Your task to perform on an android device: toggle show notifications on the lock screen Image 0: 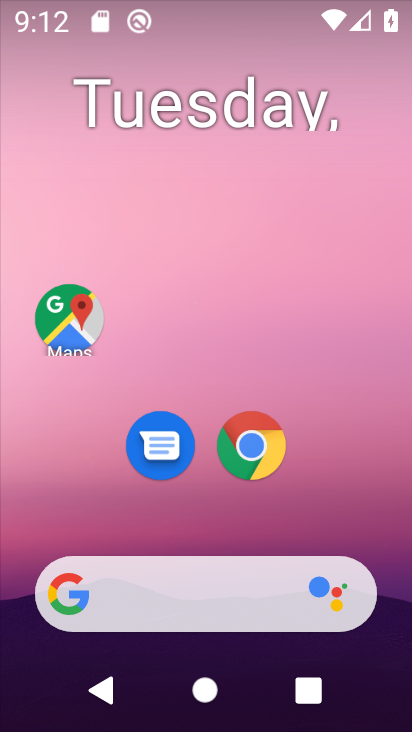
Step 0: drag from (349, 276) to (339, 195)
Your task to perform on an android device: toggle show notifications on the lock screen Image 1: 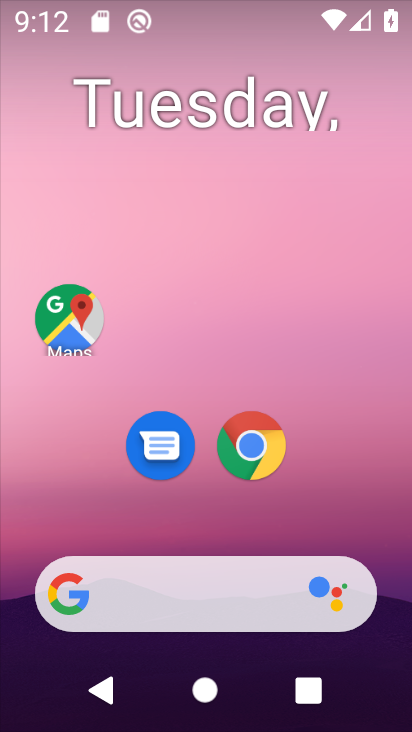
Step 1: drag from (357, 180) to (347, 135)
Your task to perform on an android device: toggle show notifications on the lock screen Image 2: 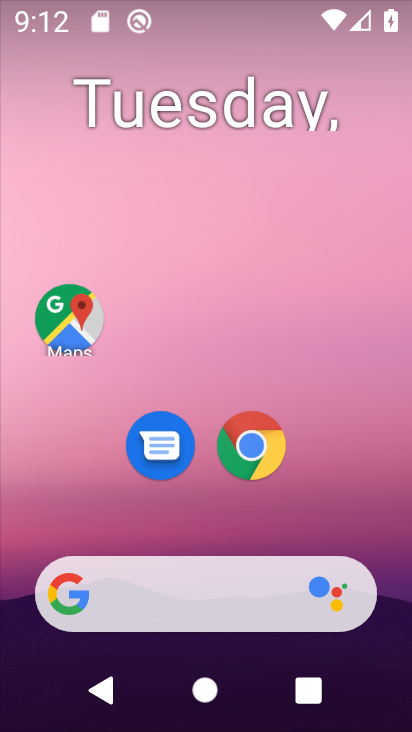
Step 2: drag from (393, 590) to (357, 91)
Your task to perform on an android device: toggle show notifications on the lock screen Image 3: 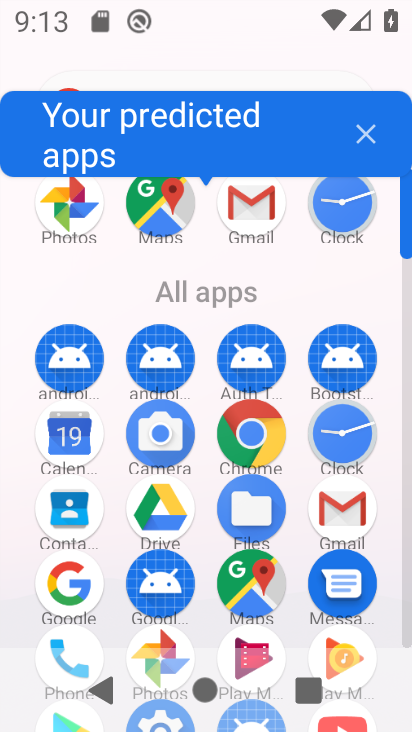
Step 3: drag from (403, 221) to (398, 126)
Your task to perform on an android device: toggle show notifications on the lock screen Image 4: 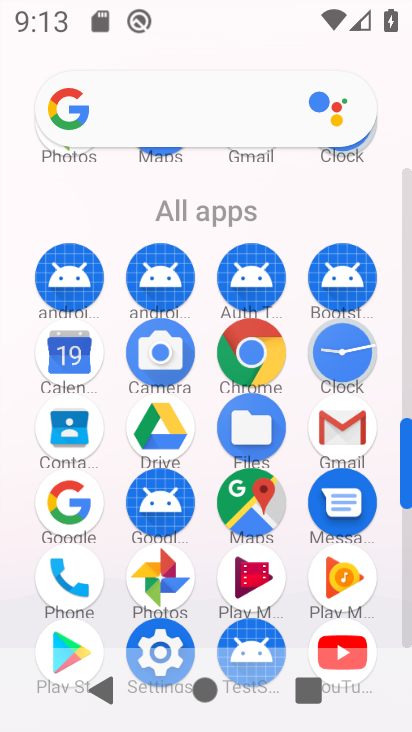
Step 4: click (161, 633)
Your task to perform on an android device: toggle show notifications on the lock screen Image 5: 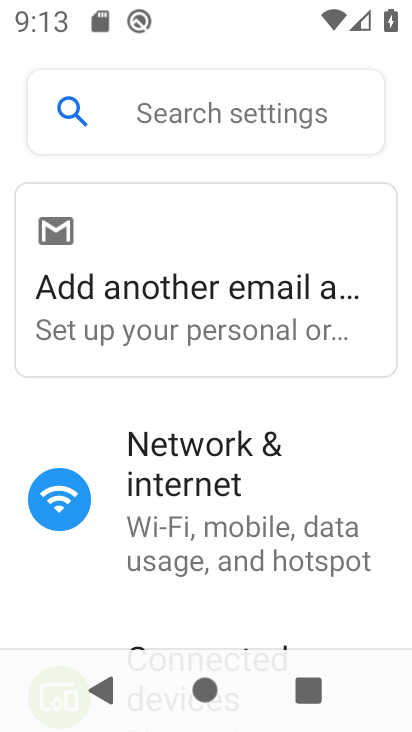
Step 5: click (404, 222)
Your task to perform on an android device: toggle show notifications on the lock screen Image 6: 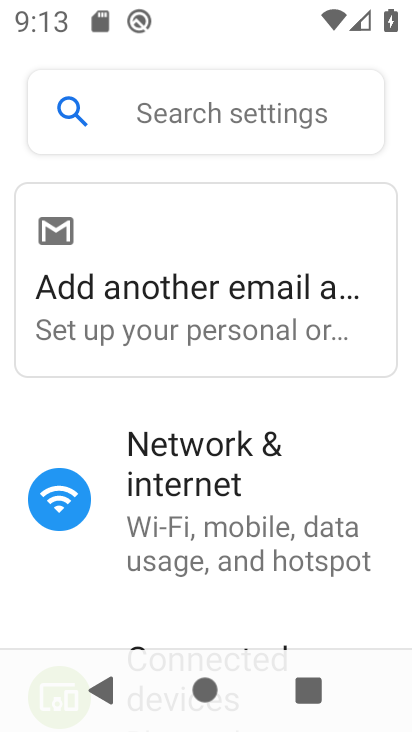
Step 6: drag from (357, 354) to (354, 225)
Your task to perform on an android device: toggle show notifications on the lock screen Image 7: 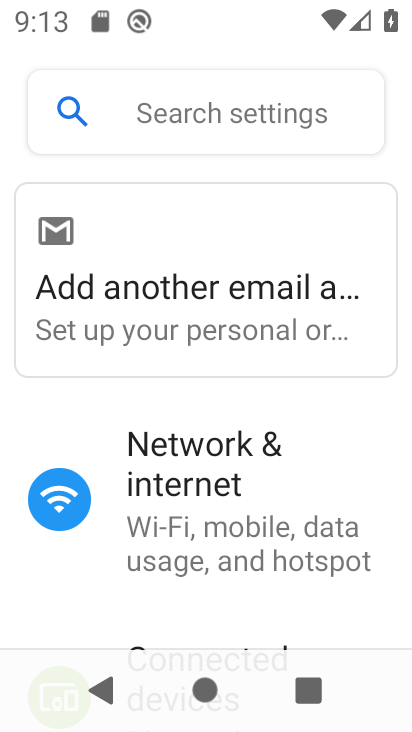
Step 7: drag from (356, 379) to (344, 146)
Your task to perform on an android device: toggle show notifications on the lock screen Image 8: 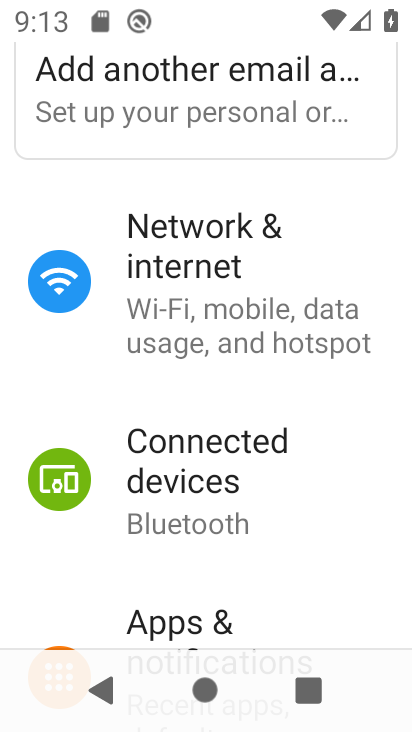
Step 8: drag from (347, 605) to (346, 207)
Your task to perform on an android device: toggle show notifications on the lock screen Image 9: 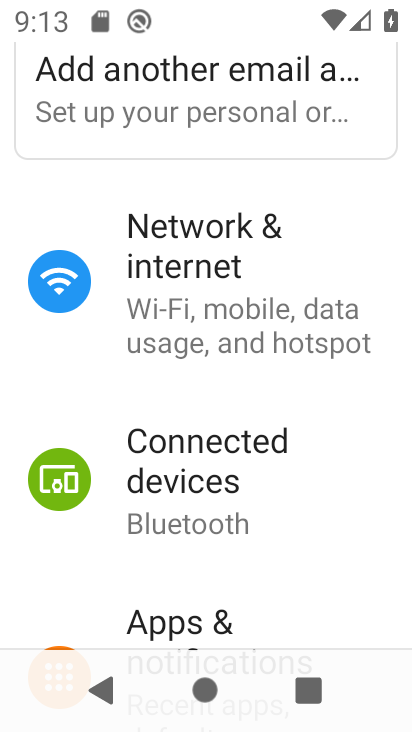
Step 9: click (188, 617)
Your task to perform on an android device: toggle show notifications on the lock screen Image 10: 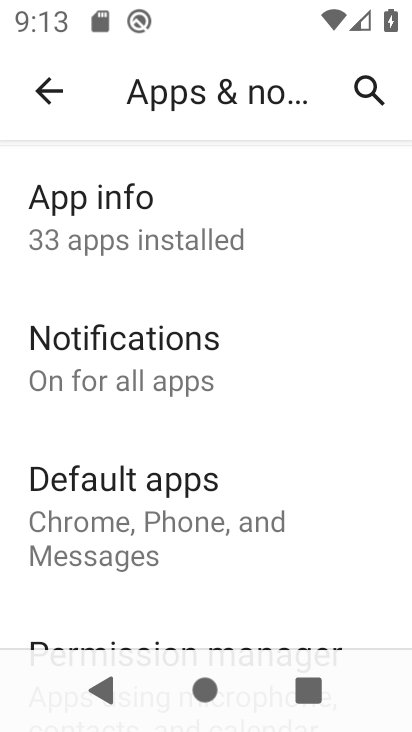
Step 10: drag from (328, 602) to (314, 199)
Your task to perform on an android device: toggle show notifications on the lock screen Image 11: 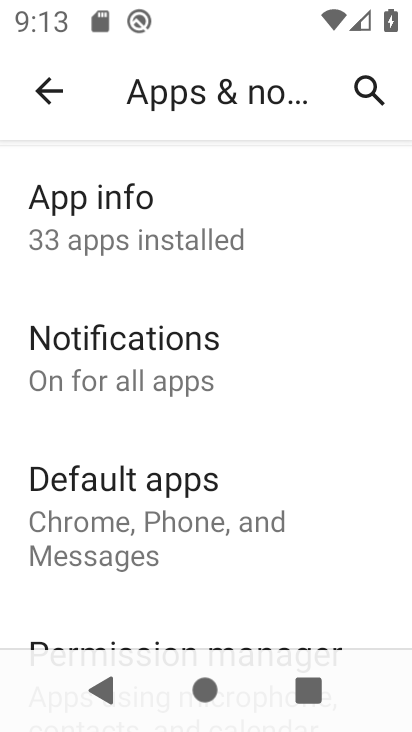
Step 11: click (107, 354)
Your task to perform on an android device: toggle show notifications on the lock screen Image 12: 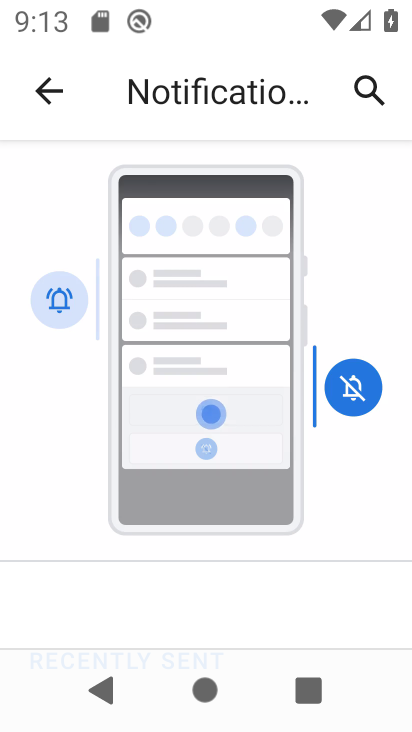
Step 12: drag from (292, 488) to (290, 246)
Your task to perform on an android device: toggle show notifications on the lock screen Image 13: 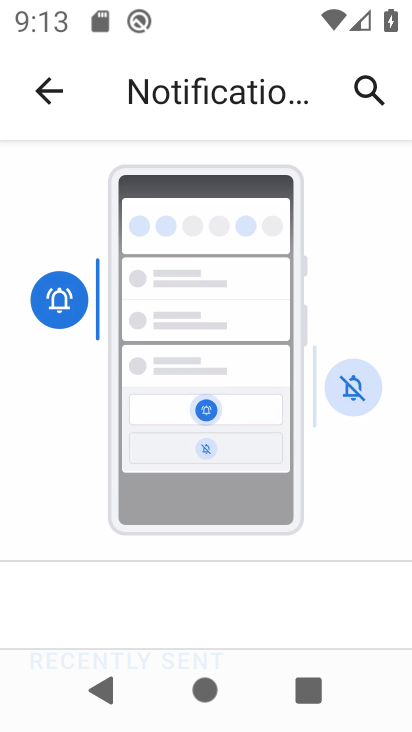
Step 13: drag from (284, 597) to (279, 236)
Your task to perform on an android device: toggle show notifications on the lock screen Image 14: 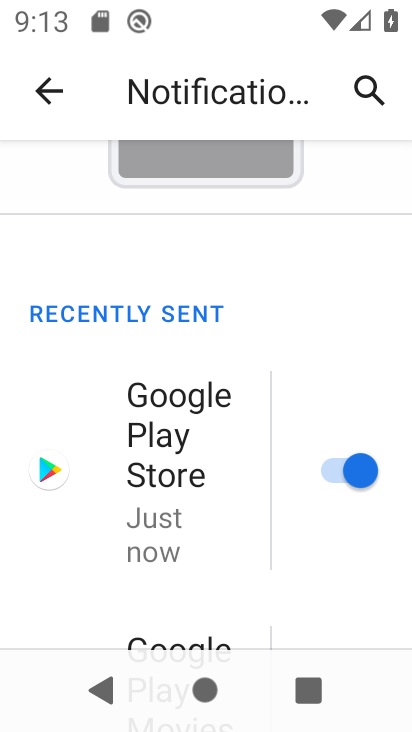
Step 14: click (280, 202)
Your task to perform on an android device: toggle show notifications on the lock screen Image 15: 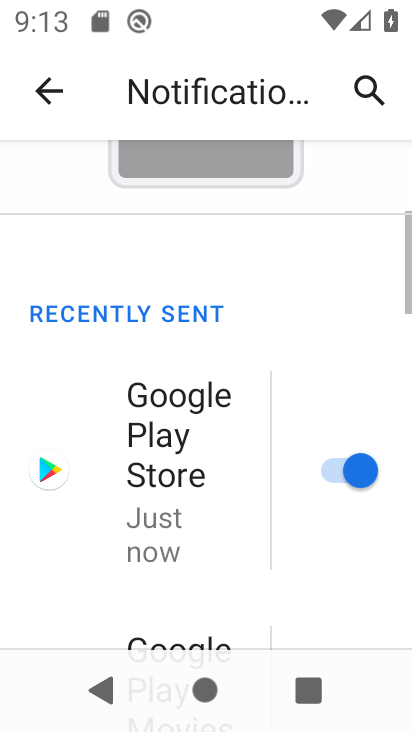
Step 15: drag from (267, 415) to (269, 253)
Your task to perform on an android device: toggle show notifications on the lock screen Image 16: 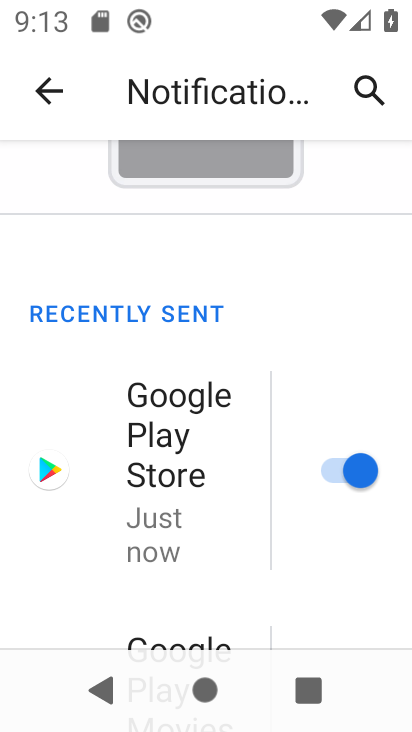
Step 16: drag from (275, 411) to (262, 262)
Your task to perform on an android device: toggle show notifications on the lock screen Image 17: 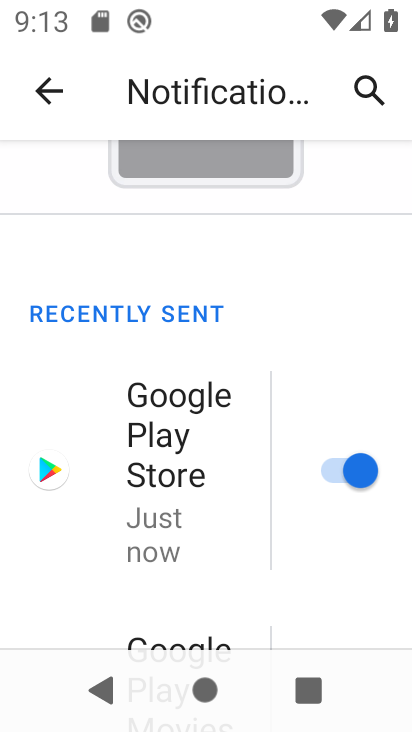
Step 17: drag from (257, 613) to (246, 251)
Your task to perform on an android device: toggle show notifications on the lock screen Image 18: 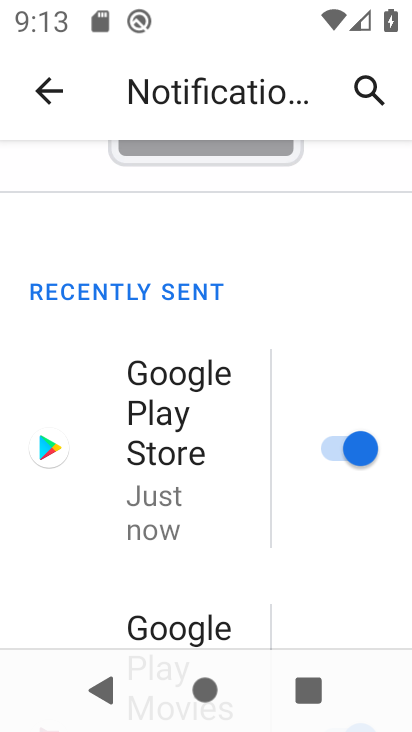
Step 18: drag from (289, 335) to (276, 188)
Your task to perform on an android device: toggle show notifications on the lock screen Image 19: 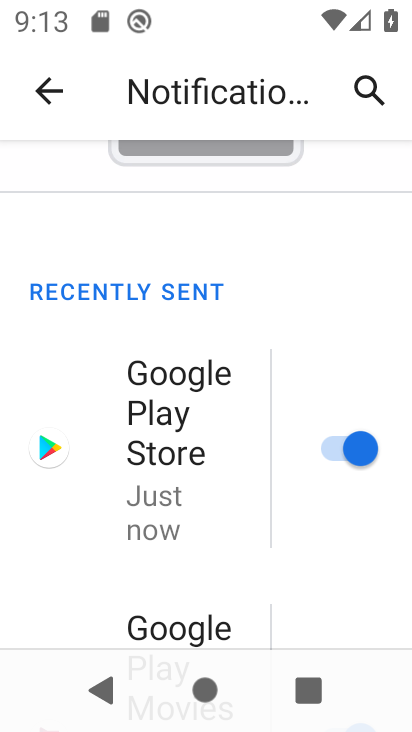
Step 19: drag from (273, 623) to (250, 297)
Your task to perform on an android device: toggle show notifications on the lock screen Image 20: 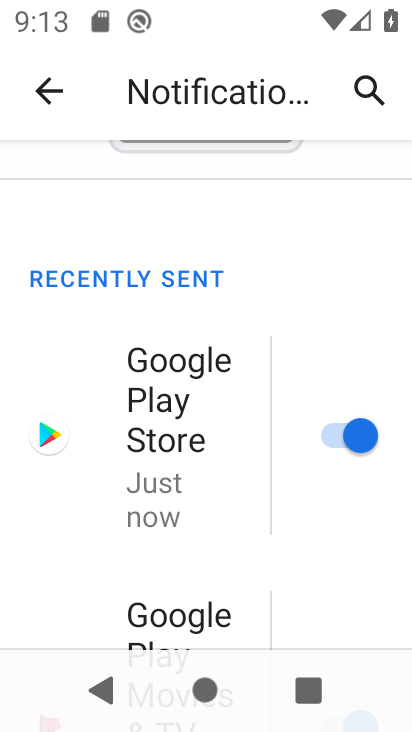
Step 20: drag from (265, 592) to (246, 261)
Your task to perform on an android device: toggle show notifications on the lock screen Image 21: 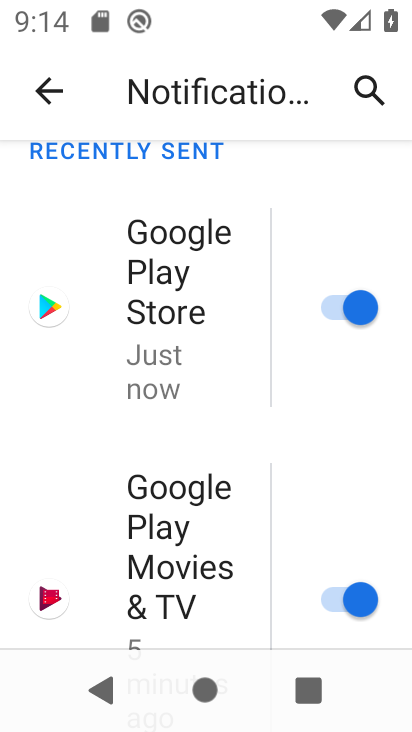
Step 21: drag from (411, 241) to (400, 192)
Your task to perform on an android device: toggle show notifications on the lock screen Image 22: 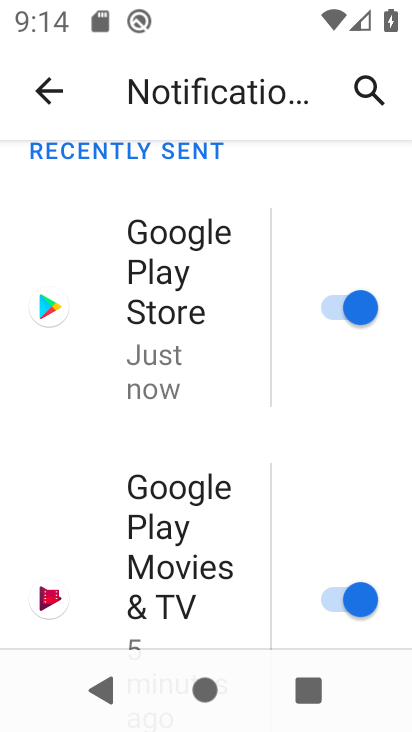
Step 22: drag from (273, 553) to (280, 258)
Your task to perform on an android device: toggle show notifications on the lock screen Image 23: 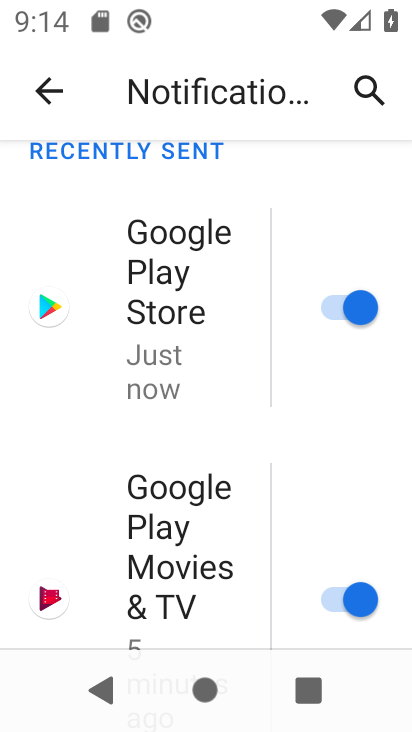
Step 23: drag from (282, 483) to (272, 244)
Your task to perform on an android device: toggle show notifications on the lock screen Image 24: 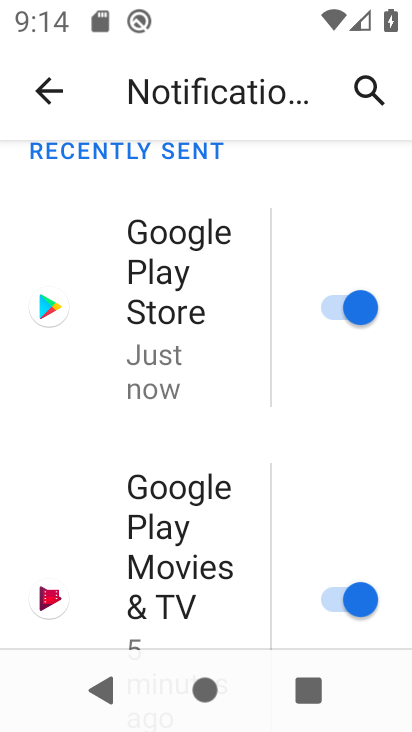
Step 24: drag from (269, 603) to (255, 158)
Your task to perform on an android device: toggle show notifications on the lock screen Image 25: 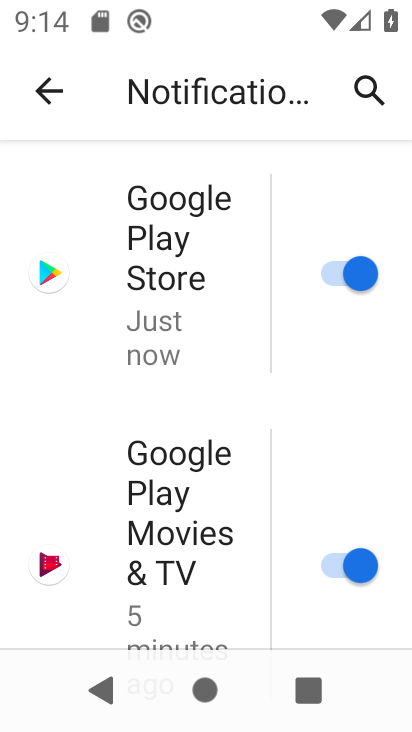
Step 25: drag from (272, 573) to (257, 199)
Your task to perform on an android device: toggle show notifications on the lock screen Image 26: 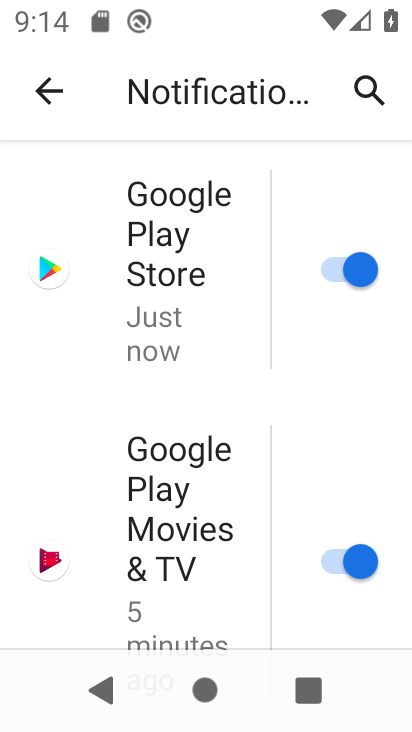
Step 26: drag from (271, 339) to (256, 161)
Your task to perform on an android device: toggle show notifications on the lock screen Image 27: 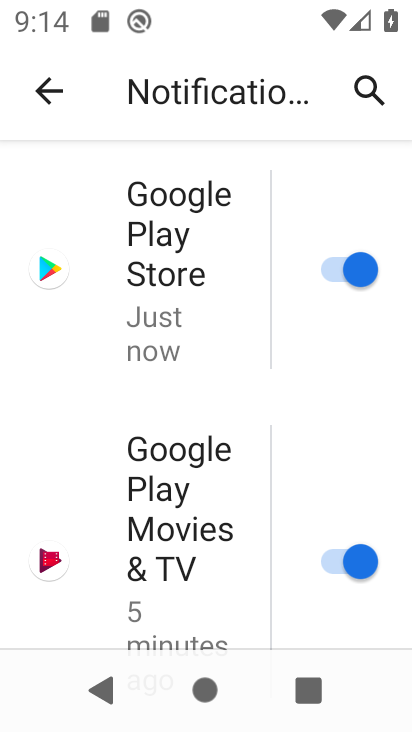
Step 27: drag from (305, 498) to (321, 205)
Your task to perform on an android device: toggle show notifications on the lock screen Image 28: 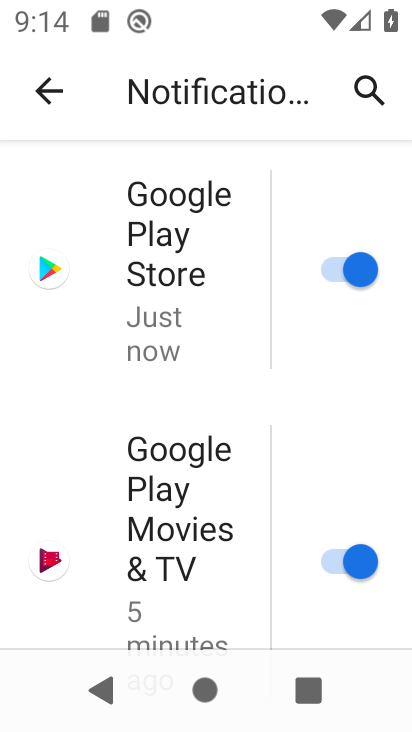
Step 28: drag from (262, 581) to (246, 224)
Your task to perform on an android device: toggle show notifications on the lock screen Image 29: 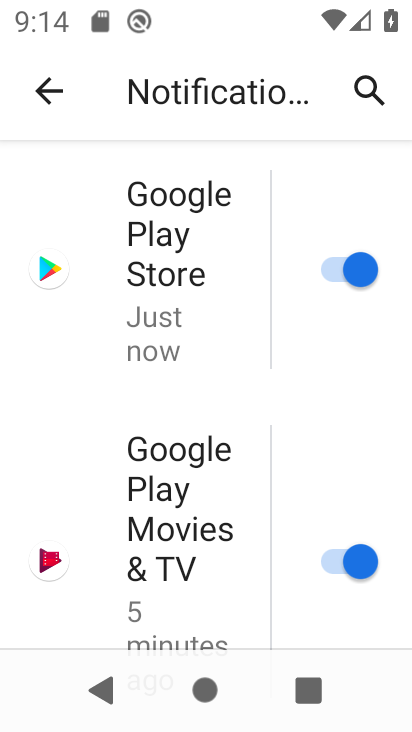
Step 29: drag from (319, 429) to (317, 263)
Your task to perform on an android device: toggle show notifications on the lock screen Image 30: 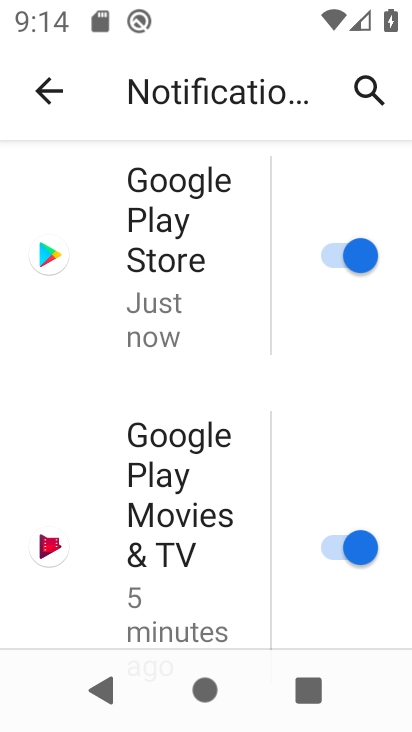
Step 30: drag from (408, 298) to (409, 189)
Your task to perform on an android device: toggle show notifications on the lock screen Image 31: 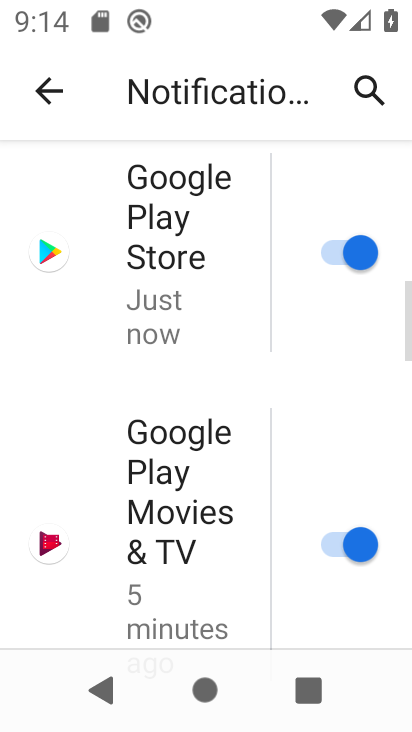
Step 31: drag from (403, 278) to (403, 119)
Your task to perform on an android device: toggle show notifications on the lock screen Image 32: 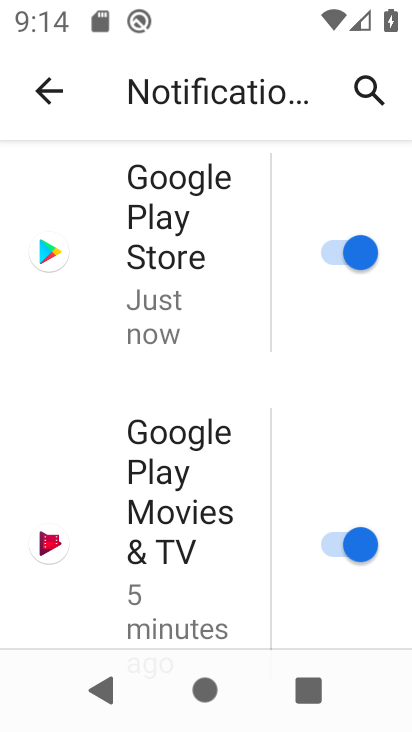
Step 32: drag from (401, 350) to (386, 136)
Your task to perform on an android device: toggle show notifications on the lock screen Image 33: 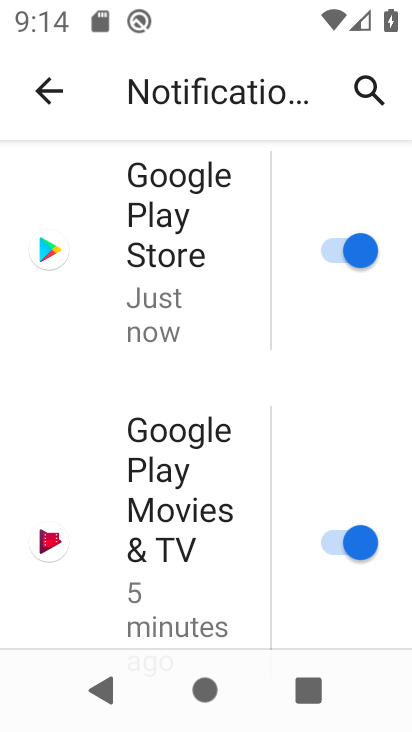
Step 33: drag from (408, 354) to (407, 266)
Your task to perform on an android device: toggle show notifications on the lock screen Image 34: 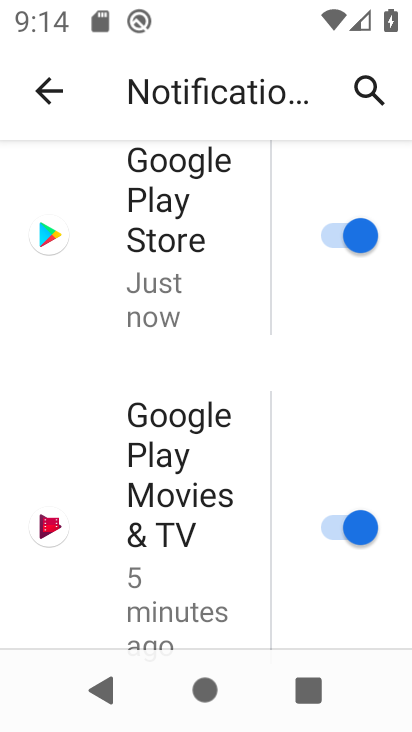
Step 34: drag from (400, 362) to (397, 168)
Your task to perform on an android device: toggle show notifications on the lock screen Image 35: 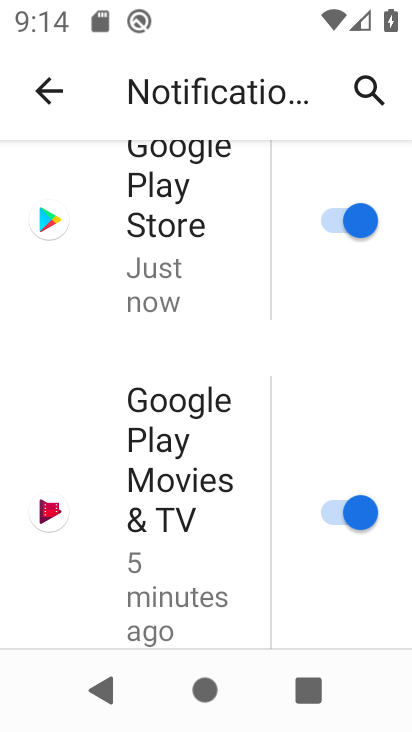
Step 35: drag from (404, 391) to (398, 282)
Your task to perform on an android device: toggle show notifications on the lock screen Image 36: 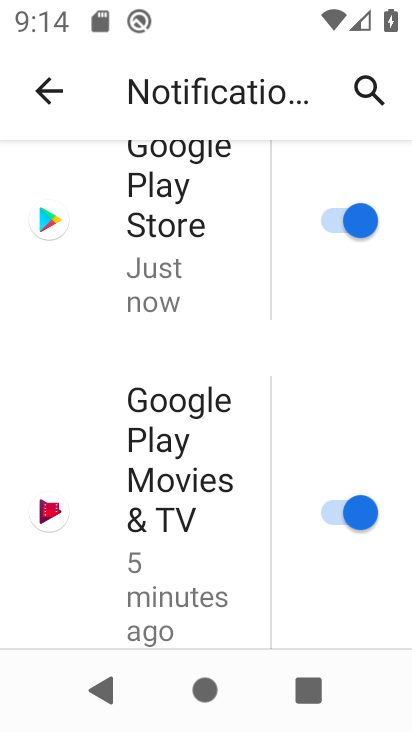
Step 36: click (406, 175)
Your task to perform on an android device: toggle show notifications on the lock screen Image 37: 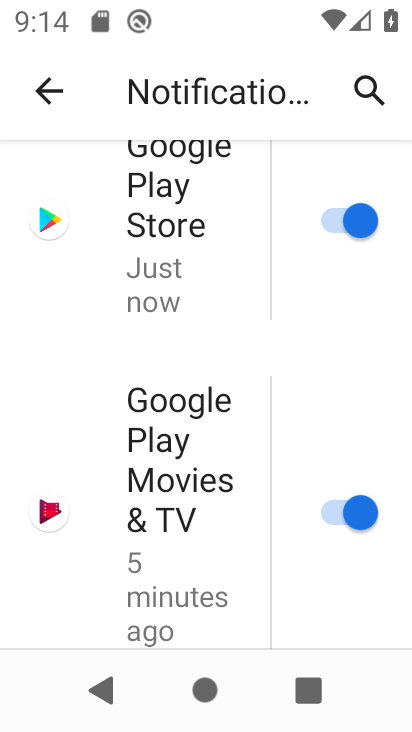
Step 37: drag from (398, 350) to (390, 201)
Your task to perform on an android device: toggle show notifications on the lock screen Image 38: 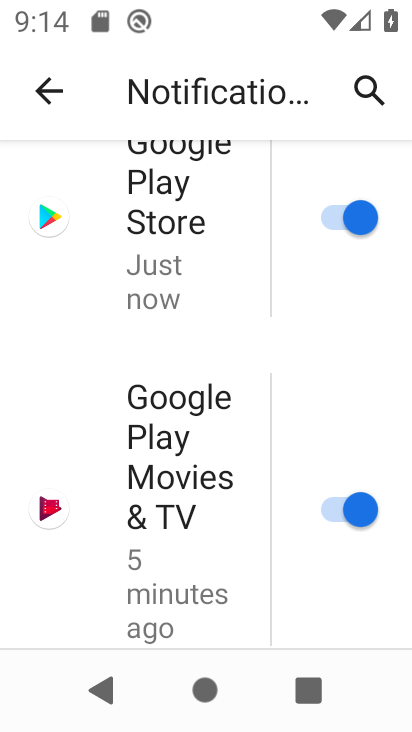
Step 38: drag from (389, 254) to (386, 145)
Your task to perform on an android device: toggle show notifications on the lock screen Image 39: 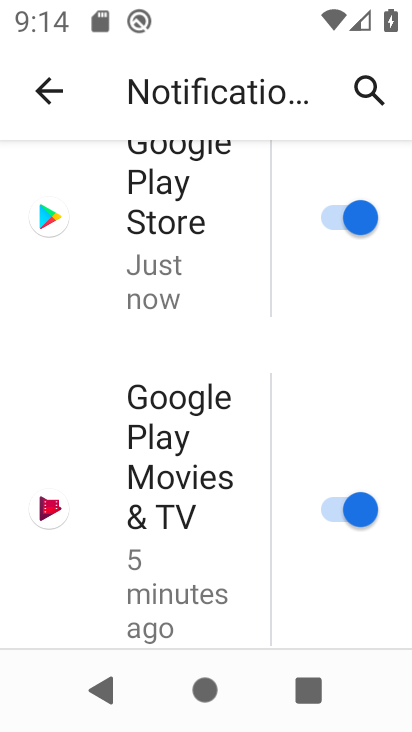
Step 39: drag from (398, 448) to (374, 175)
Your task to perform on an android device: toggle show notifications on the lock screen Image 40: 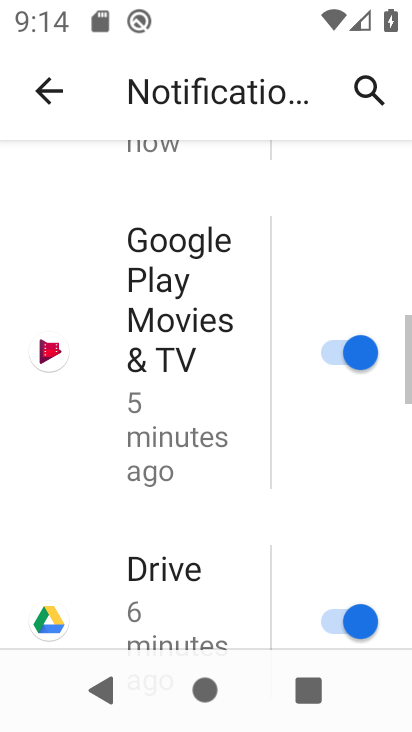
Step 40: drag from (406, 444) to (407, 185)
Your task to perform on an android device: toggle show notifications on the lock screen Image 41: 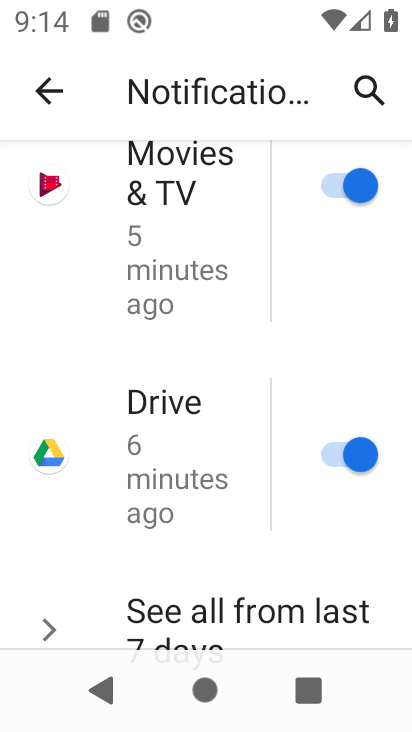
Step 41: drag from (254, 494) to (279, 207)
Your task to perform on an android device: toggle show notifications on the lock screen Image 42: 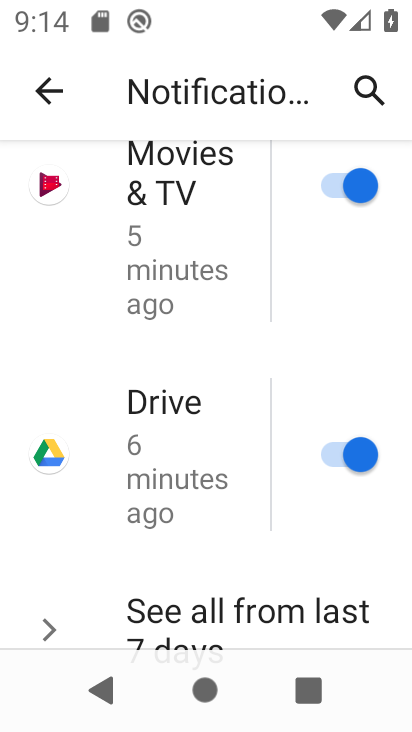
Step 42: drag from (257, 647) to (246, 286)
Your task to perform on an android device: toggle show notifications on the lock screen Image 43: 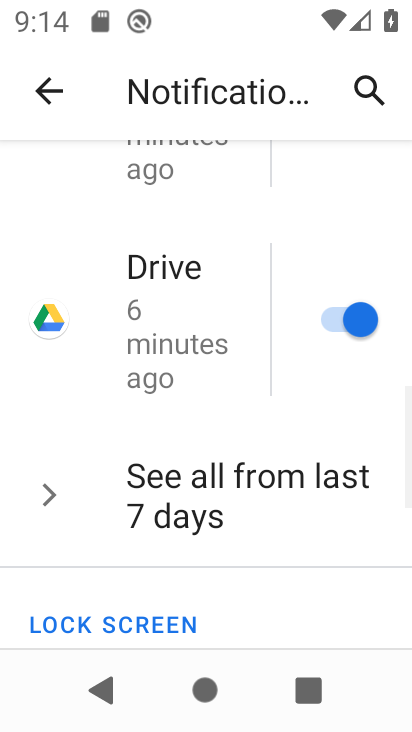
Step 43: drag from (241, 429) to (236, 203)
Your task to perform on an android device: toggle show notifications on the lock screen Image 44: 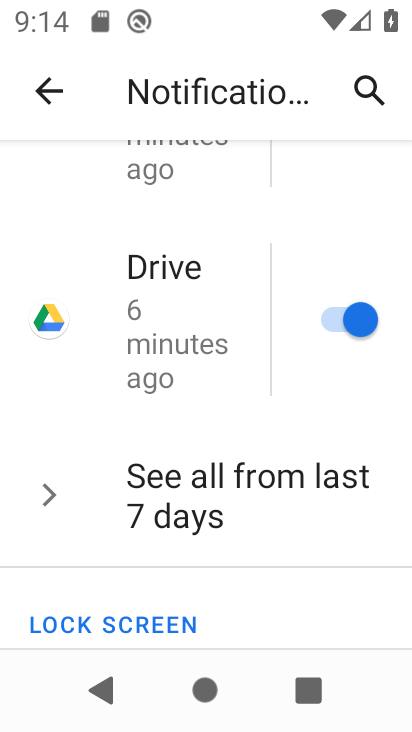
Step 44: drag from (259, 405) to (261, 302)
Your task to perform on an android device: toggle show notifications on the lock screen Image 45: 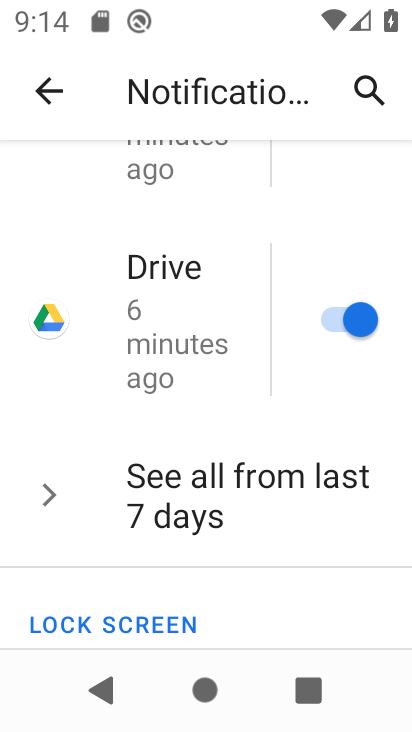
Step 45: click (174, 620)
Your task to perform on an android device: toggle show notifications on the lock screen Image 46: 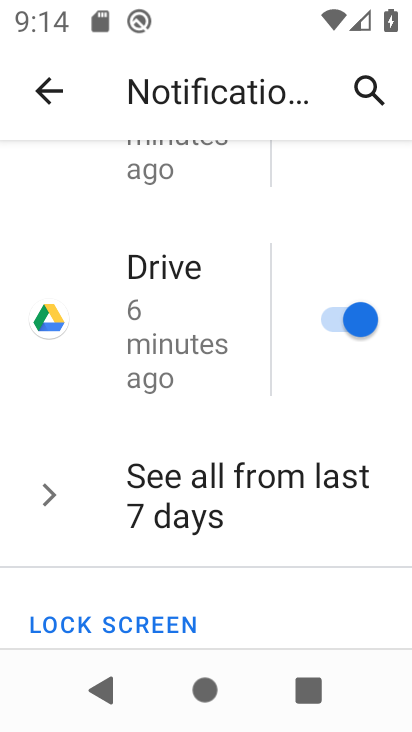
Step 46: click (133, 624)
Your task to perform on an android device: toggle show notifications on the lock screen Image 47: 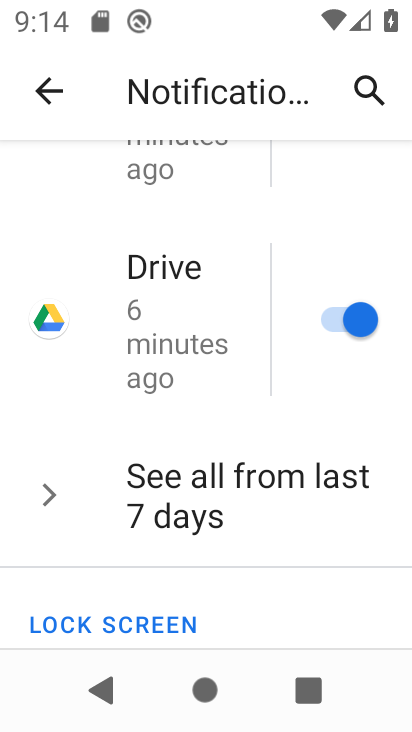
Step 47: drag from (298, 605) to (293, 176)
Your task to perform on an android device: toggle show notifications on the lock screen Image 48: 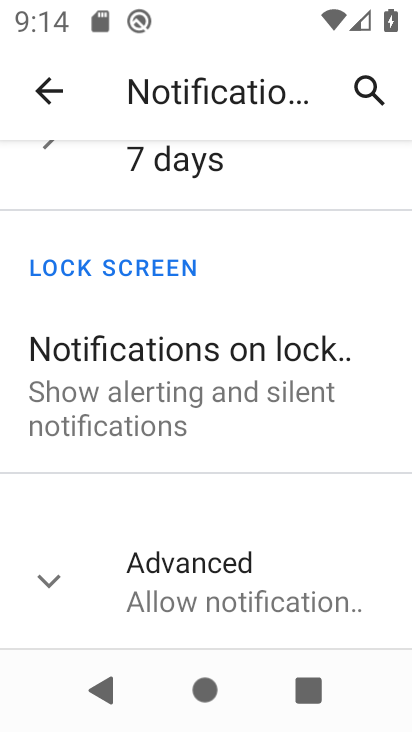
Step 48: click (116, 364)
Your task to perform on an android device: toggle show notifications on the lock screen Image 49: 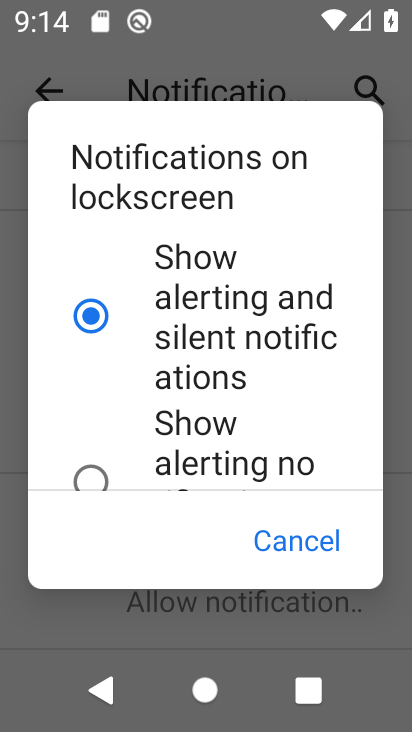
Step 49: click (95, 476)
Your task to perform on an android device: toggle show notifications on the lock screen Image 50: 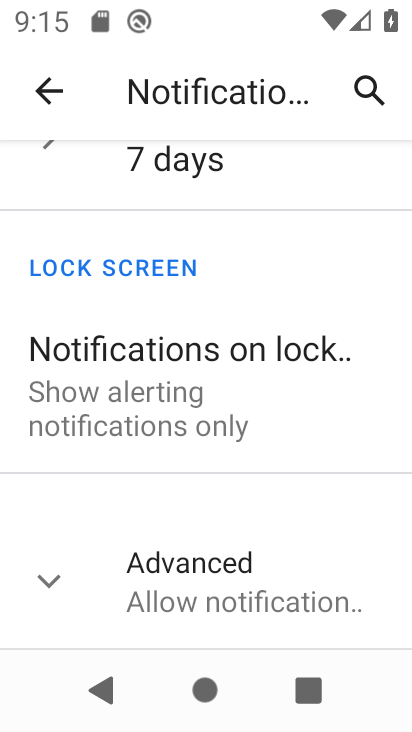
Step 50: task complete